Your task to perform on an android device: Go to battery settings Image 0: 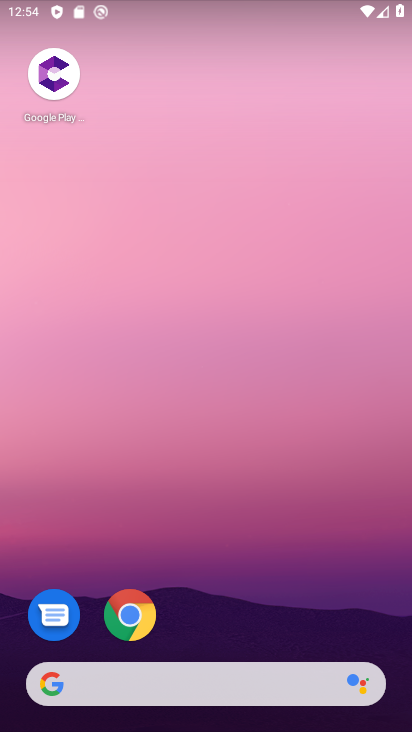
Step 0: drag from (366, 600) to (324, 30)
Your task to perform on an android device: Go to battery settings Image 1: 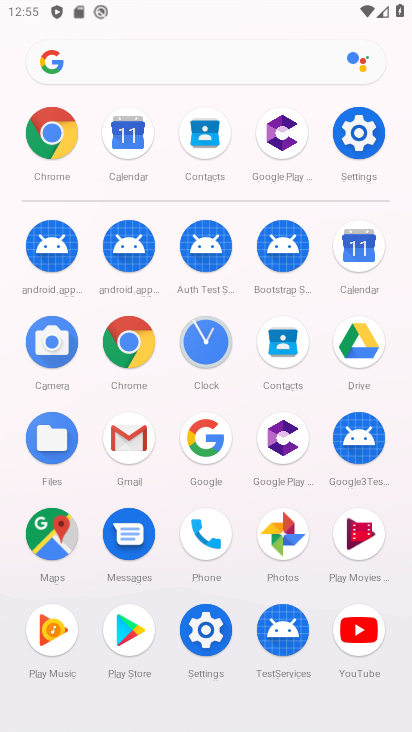
Step 1: click (380, 125)
Your task to perform on an android device: Go to battery settings Image 2: 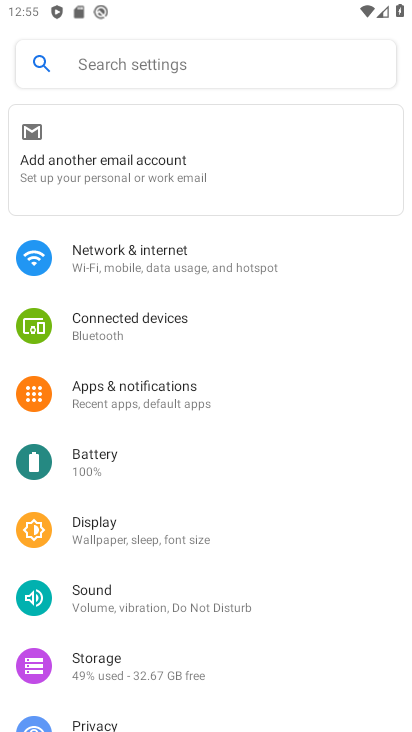
Step 2: click (110, 469)
Your task to perform on an android device: Go to battery settings Image 3: 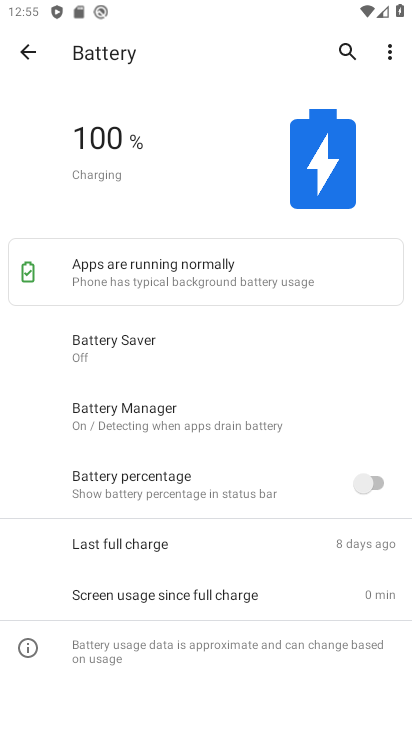
Step 3: task complete